Your task to perform on an android device: open wifi settings Image 0: 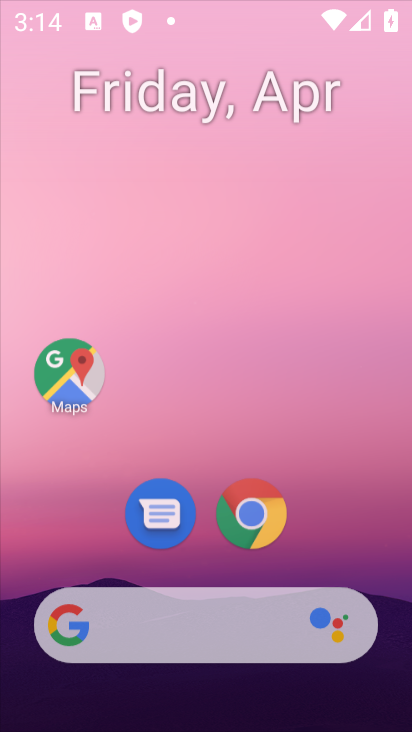
Step 0: click (227, 409)
Your task to perform on an android device: open wifi settings Image 1: 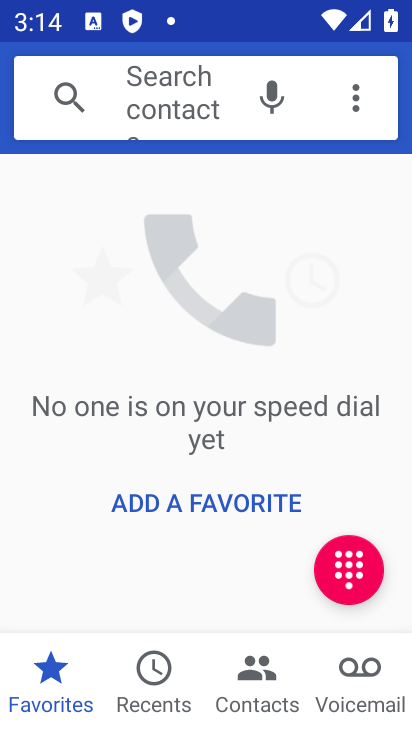
Step 1: press home button
Your task to perform on an android device: open wifi settings Image 2: 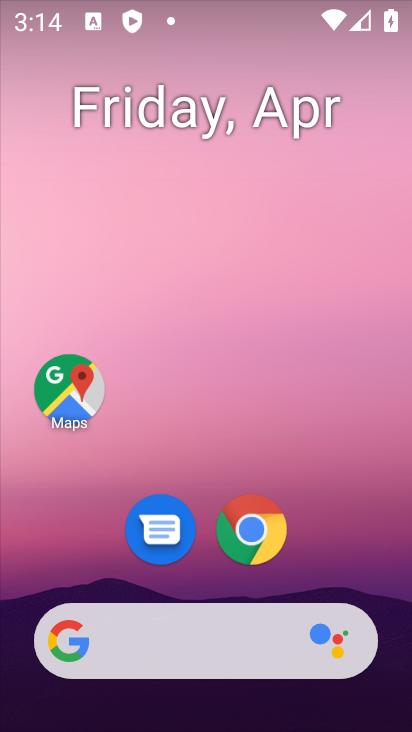
Step 2: drag from (249, 606) to (263, 168)
Your task to perform on an android device: open wifi settings Image 3: 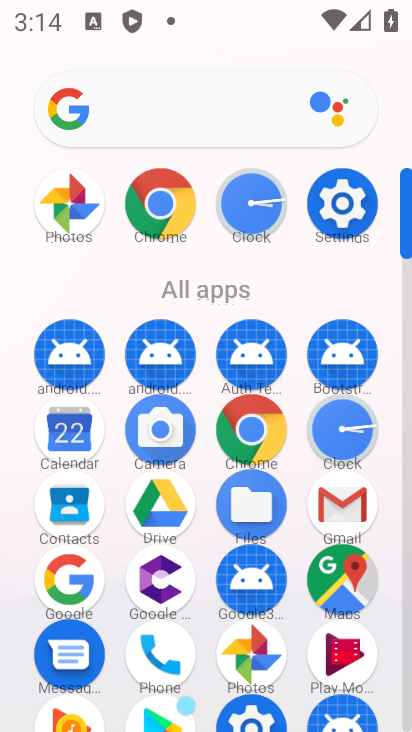
Step 3: click (352, 228)
Your task to perform on an android device: open wifi settings Image 4: 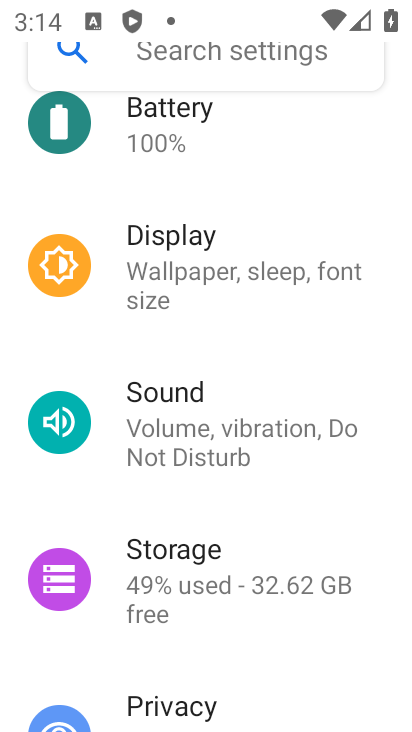
Step 4: drag from (297, 304) to (273, 466)
Your task to perform on an android device: open wifi settings Image 5: 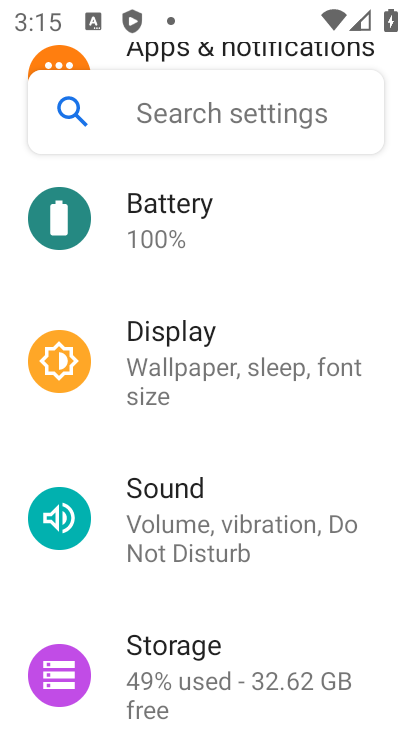
Step 5: drag from (264, 390) to (242, 681)
Your task to perform on an android device: open wifi settings Image 6: 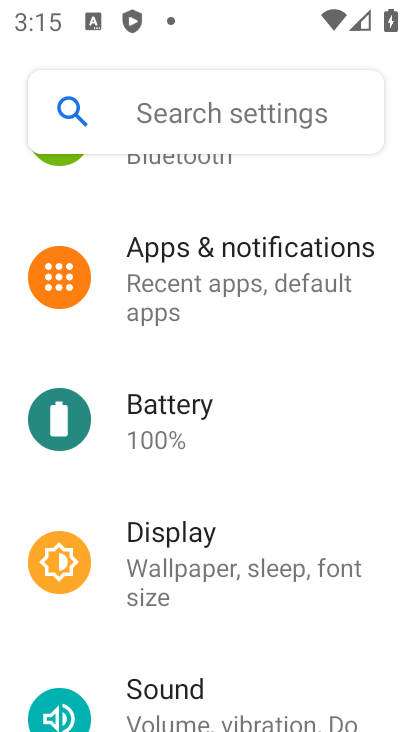
Step 6: drag from (244, 397) to (229, 669)
Your task to perform on an android device: open wifi settings Image 7: 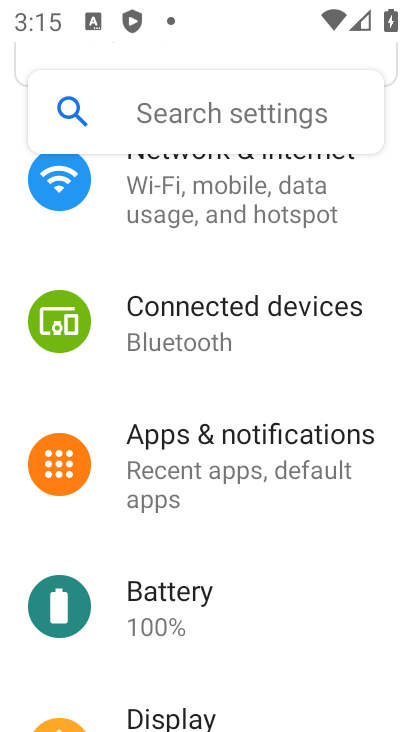
Step 7: drag from (249, 511) to (258, 624)
Your task to perform on an android device: open wifi settings Image 8: 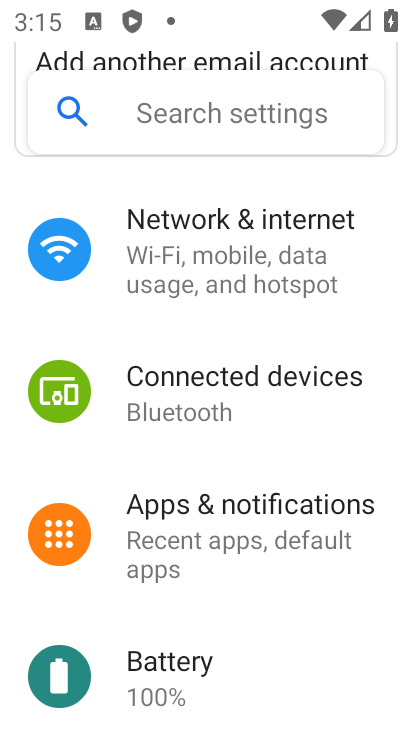
Step 8: click (268, 306)
Your task to perform on an android device: open wifi settings Image 9: 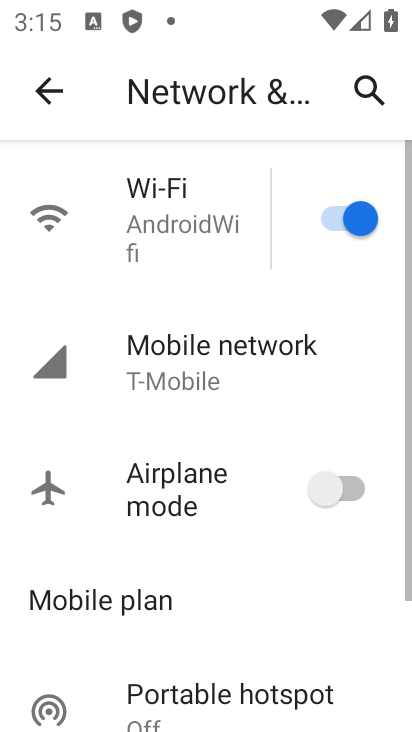
Step 9: click (206, 126)
Your task to perform on an android device: open wifi settings Image 10: 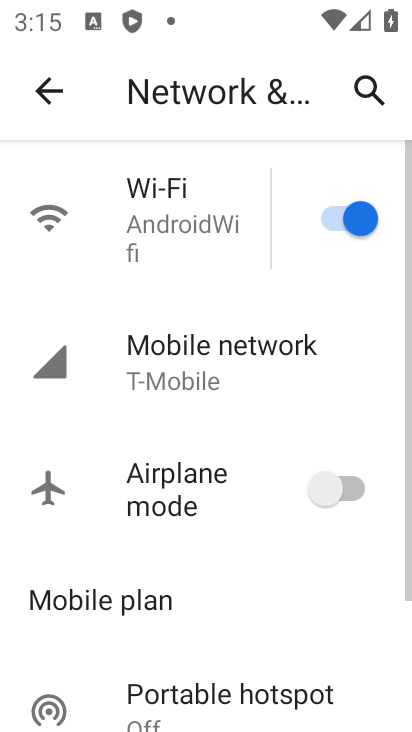
Step 10: click (187, 215)
Your task to perform on an android device: open wifi settings Image 11: 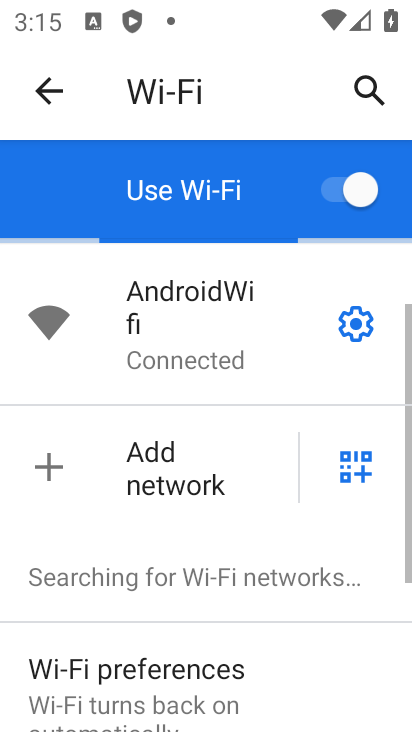
Step 11: task complete